Your task to perform on an android device: Open the map Image 0: 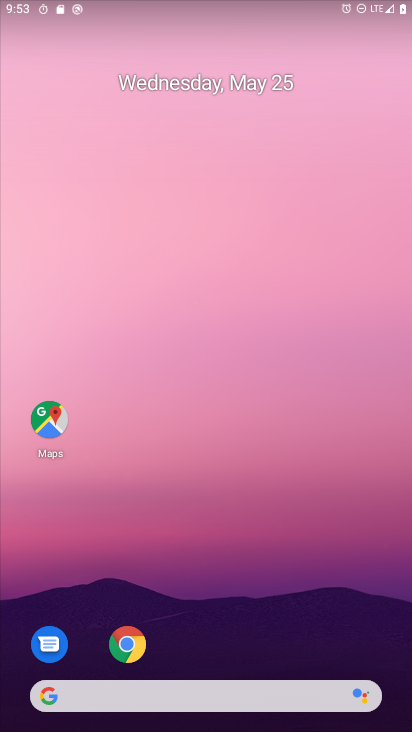
Step 0: drag from (279, 637) to (304, 96)
Your task to perform on an android device: Open the map Image 1: 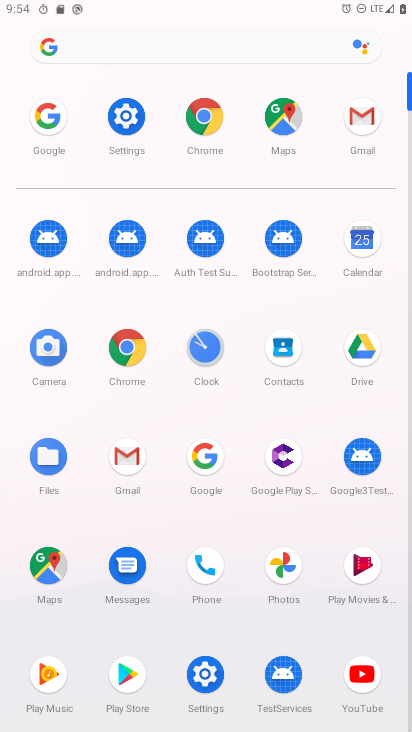
Step 1: click (55, 559)
Your task to perform on an android device: Open the map Image 2: 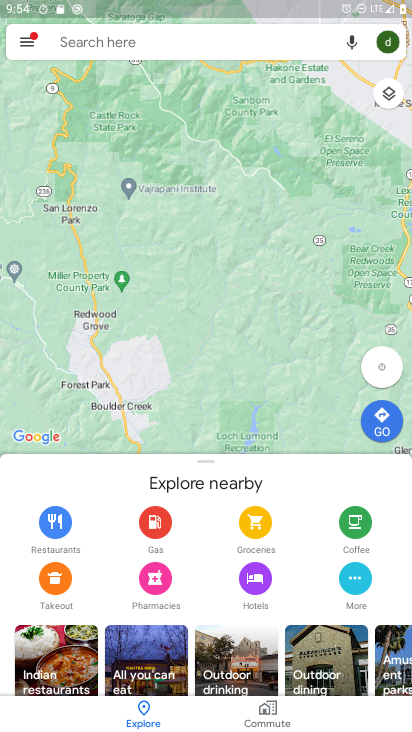
Step 2: task complete